Your task to perform on an android device: turn off airplane mode Image 0: 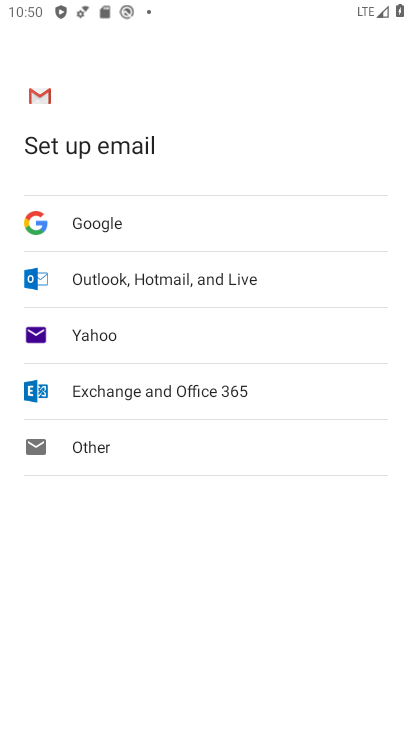
Step 0: press home button
Your task to perform on an android device: turn off airplane mode Image 1: 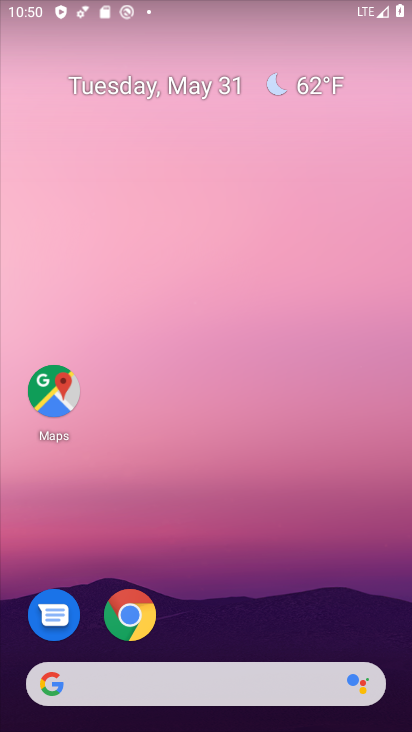
Step 1: drag from (211, 672) to (252, 224)
Your task to perform on an android device: turn off airplane mode Image 2: 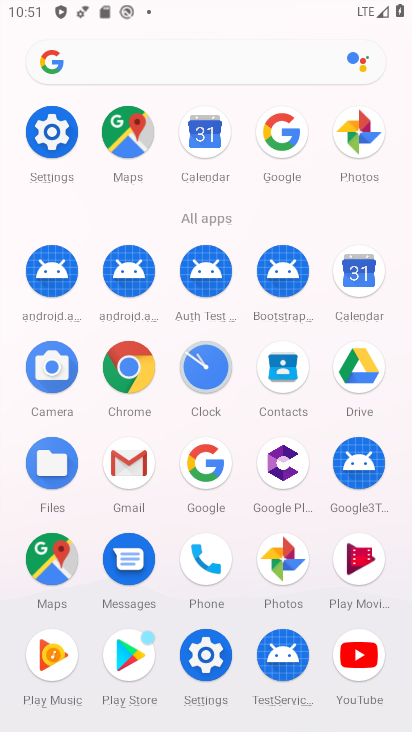
Step 2: click (51, 147)
Your task to perform on an android device: turn off airplane mode Image 3: 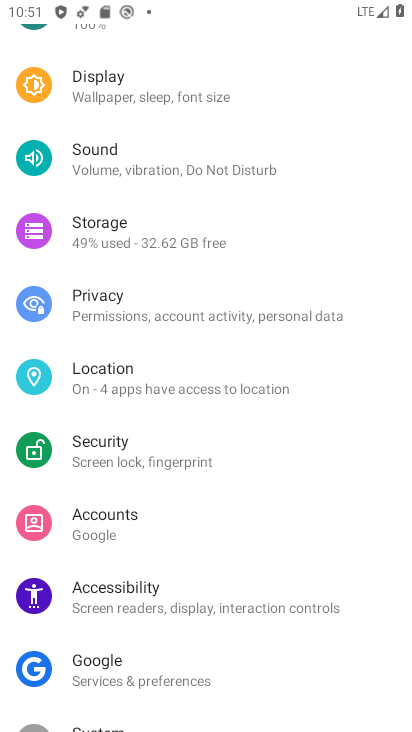
Step 3: drag from (170, 73) to (179, 629)
Your task to perform on an android device: turn off airplane mode Image 4: 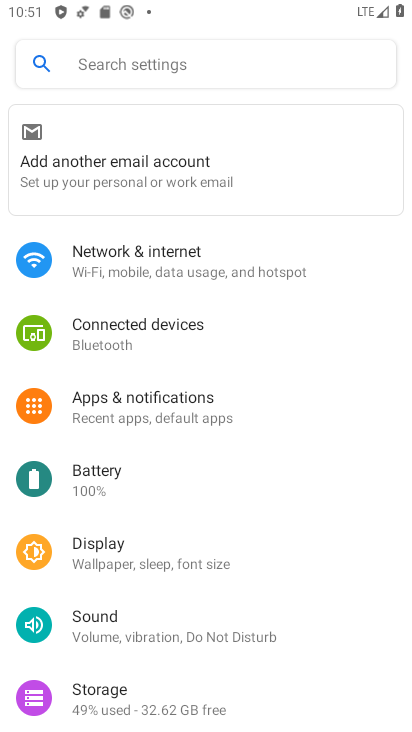
Step 4: drag from (142, 315) to (123, 719)
Your task to perform on an android device: turn off airplane mode Image 5: 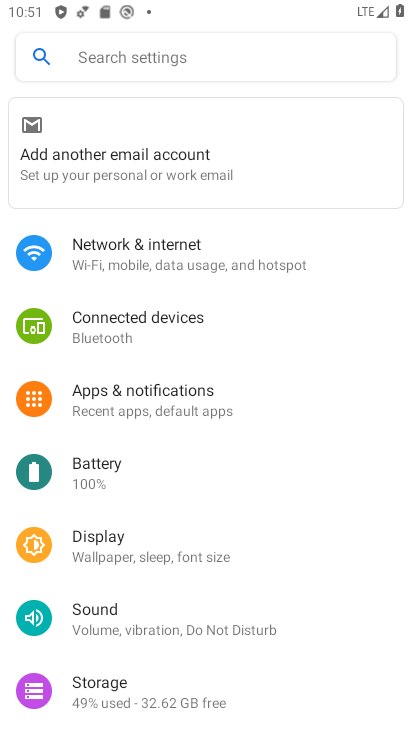
Step 5: click (165, 262)
Your task to perform on an android device: turn off airplane mode Image 6: 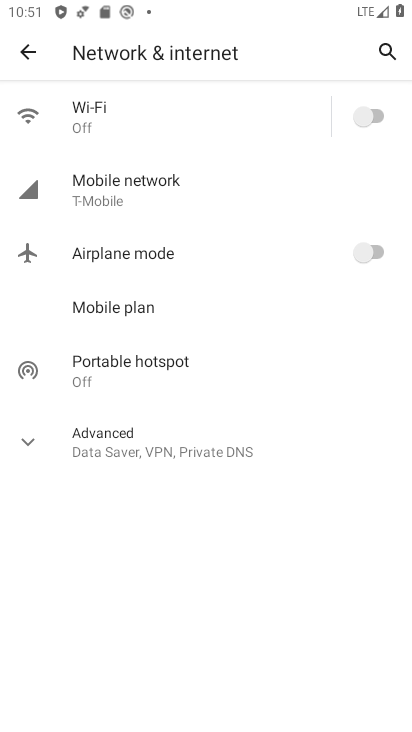
Step 6: task complete